Your task to perform on an android device: Find coffee shops on Maps Image 0: 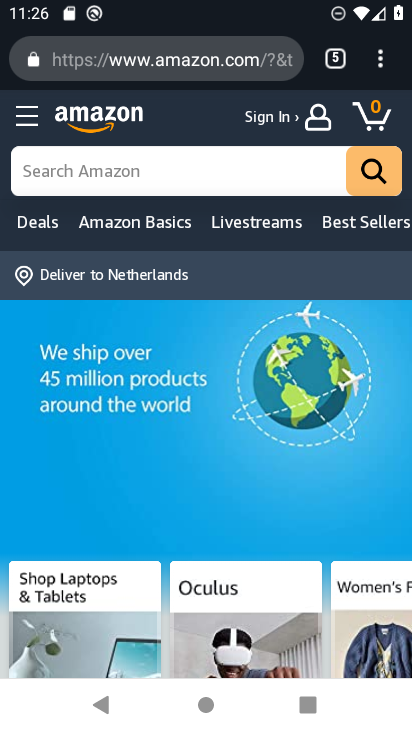
Step 0: press home button
Your task to perform on an android device: Find coffee shops on Maps Image 1: 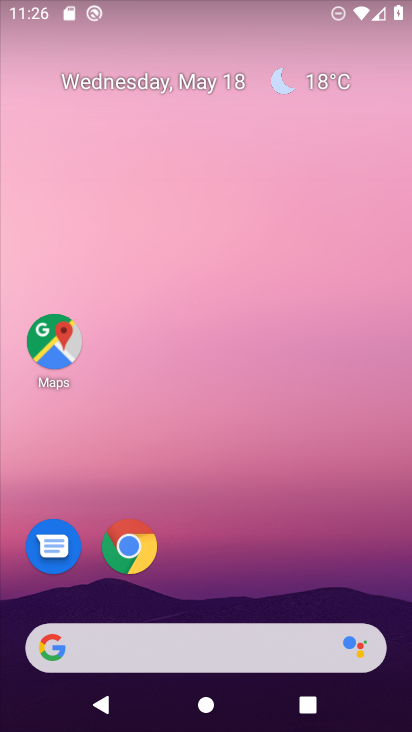
Step 1: drag from (221, 721) to (208, 75)
Your task to perform on an android device: Find coffee shops on Maps Image 2: 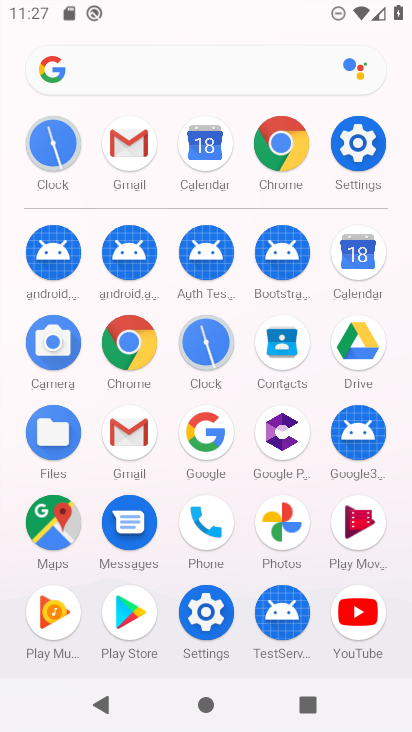
Step 2: click (48, 508)
Your task to perform on an android device: Find coffee shops on Maps Image 3: 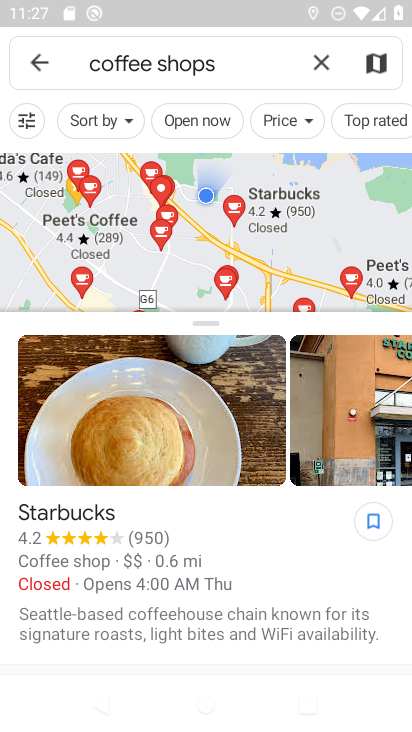
Step 3: task complete